Your task to perform on an android device: Search for the best rated 2021 Samsung Galaxy S21 Ultra on AliExpress Image 0: 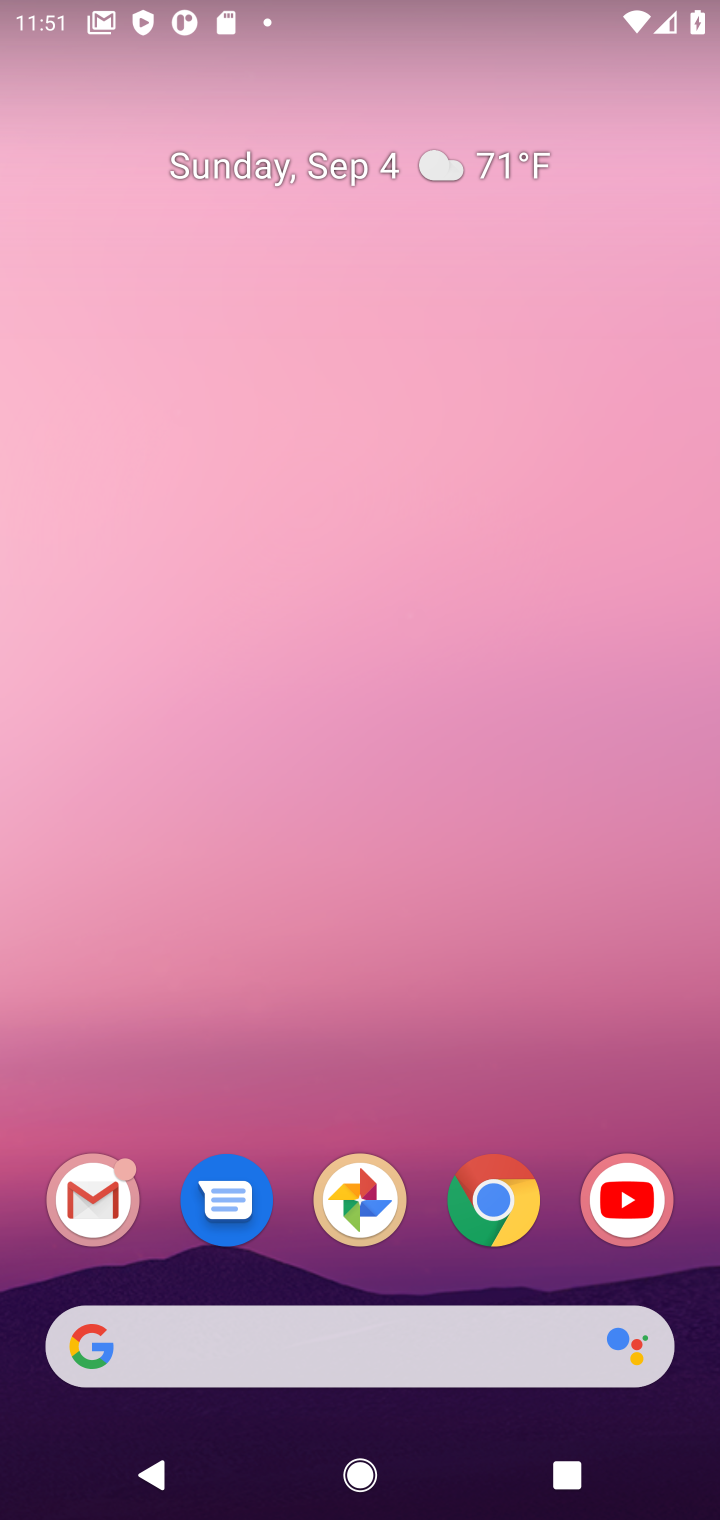
Step 0: click (489, 1207)
Your task to perform on an android device: Search for the best rated 2021 Samsung Galaxy S21 Ultra on AliExpress Image 1: 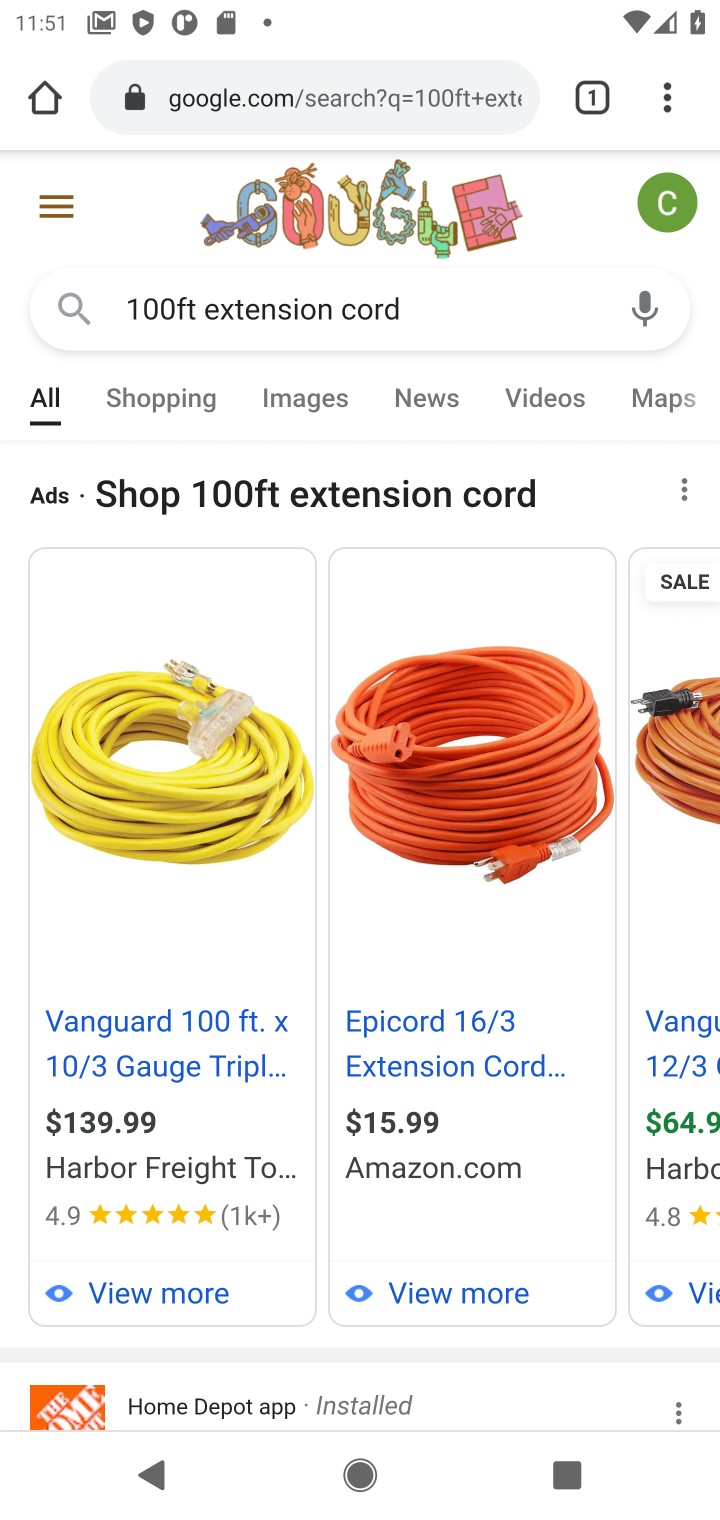
Step 1: click (360, 87)
Your task to perform on an android device: Search for the best rated 2021 Samsung Galaxy S21 Ultra on AliExpress Image 2: 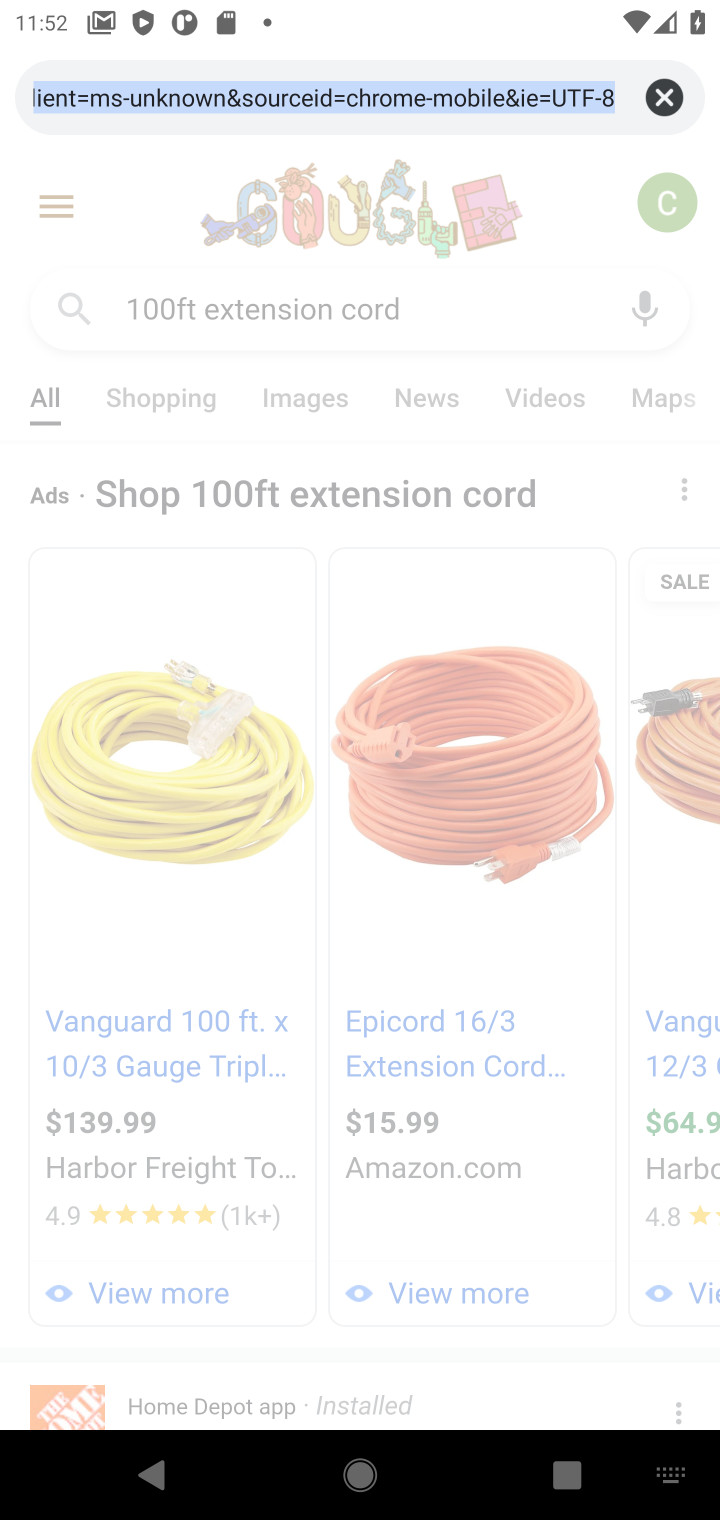
Step 2: type "Aliexpress"
Your task to perform on an android device: Search for the best rated 2021 Samsung Galaxy S21 Ultra on AliExpress Image 3: 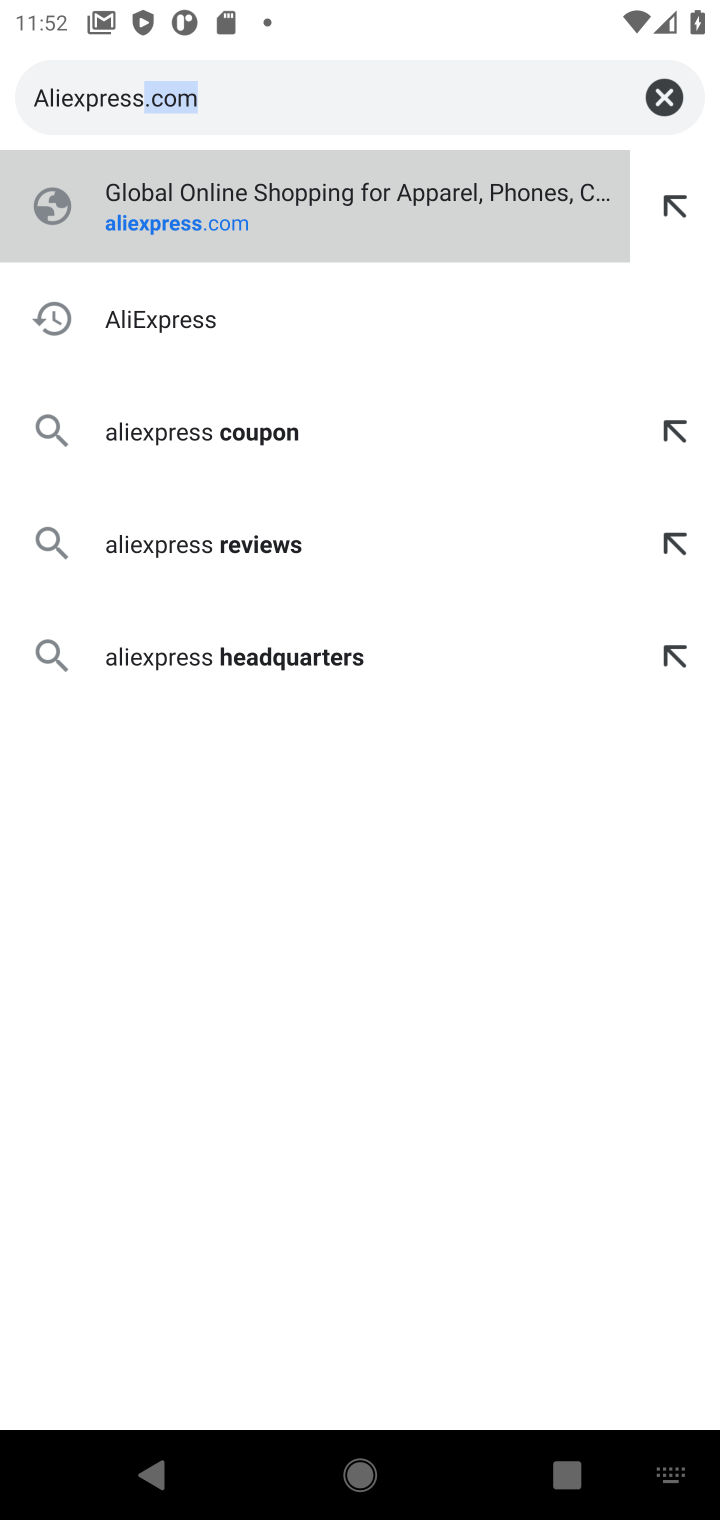
Step 3: click (287, 209)
Your task to perform on an android device: Search for the best rated 2021 Samsung Galaxy S21 Ultra on AliExpress Image 4: 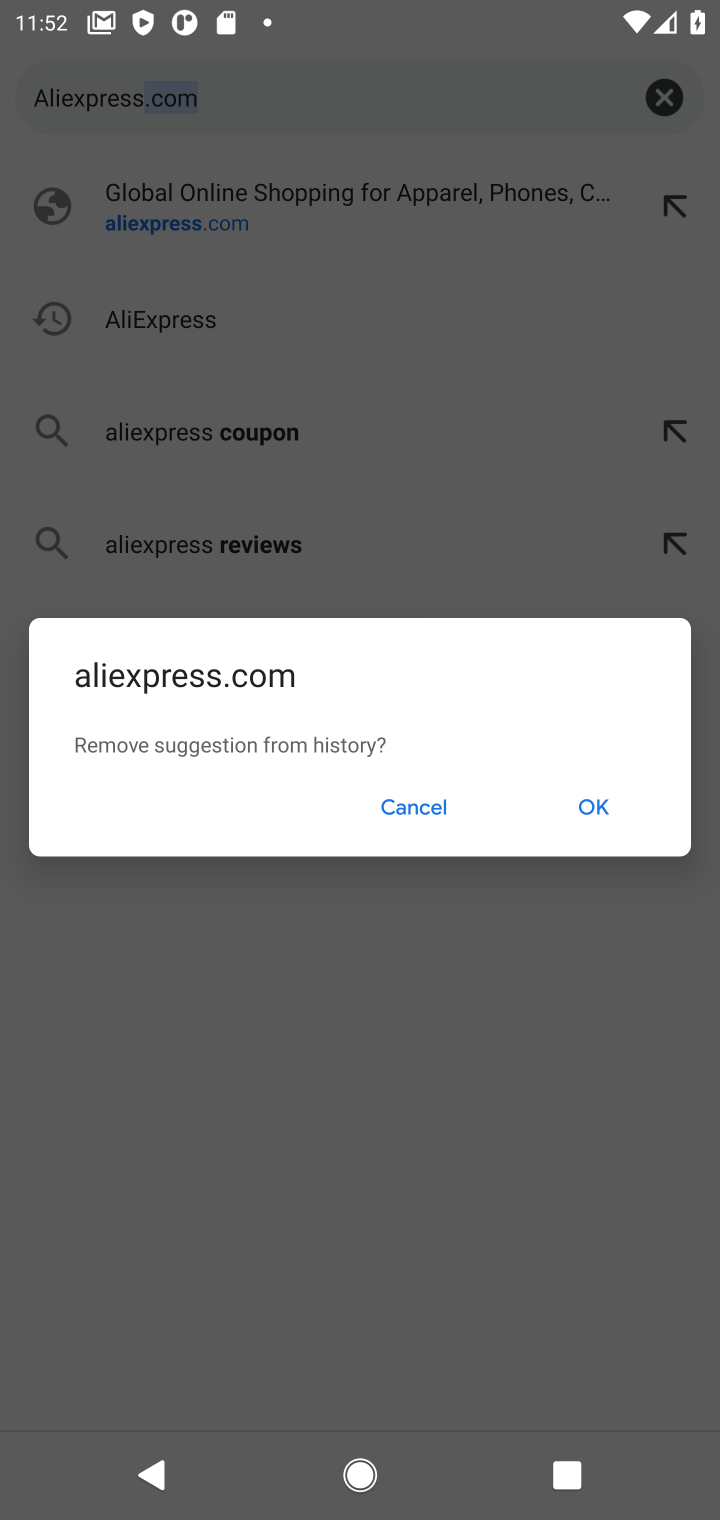
Step 4: click (418, 798)
Your task to perform on an android device: Search for the best rated 2021 Samsung Galaxy S21 Ultra on AliExpress Image 5: 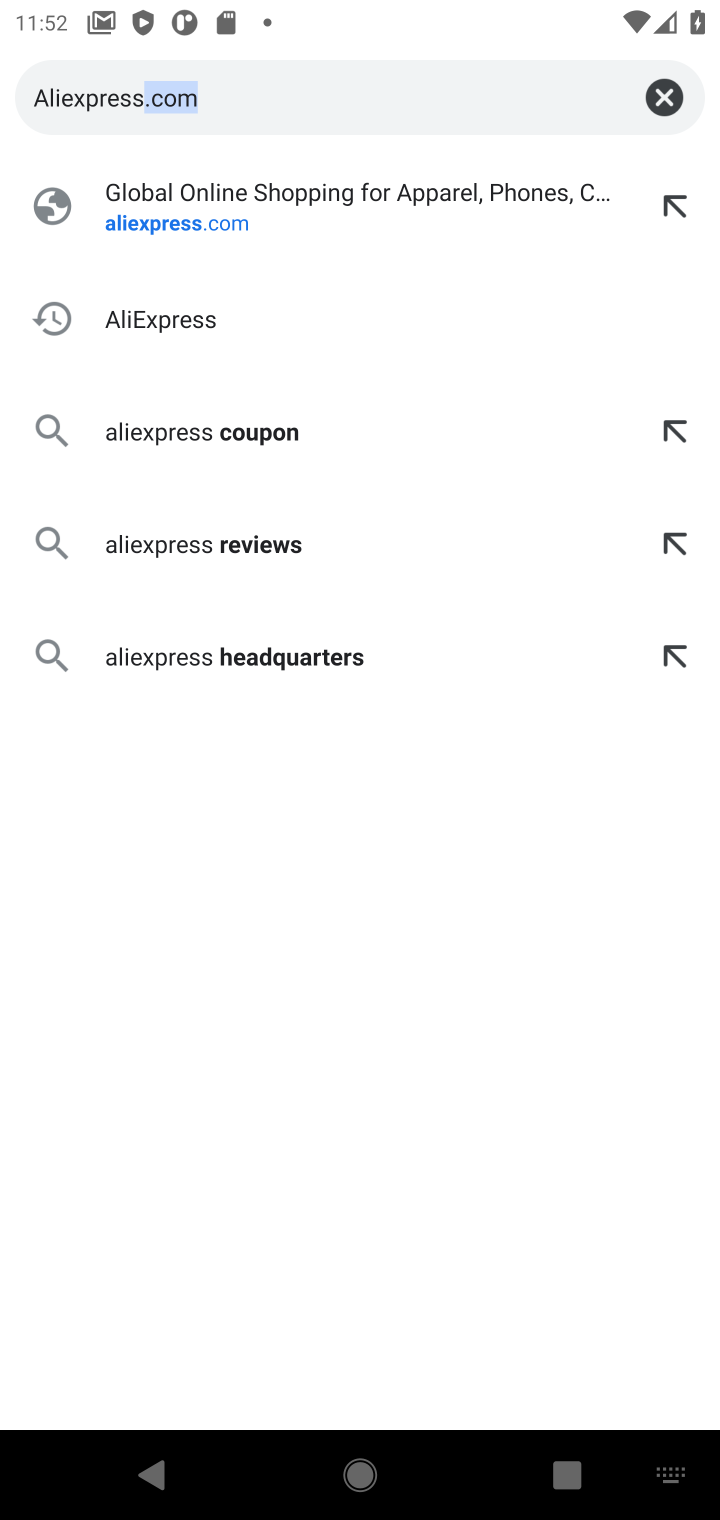
Step 5: click (54, 217)
Your task to perform on an android device: Search for the best rated 2021 Samsung Galaxy S21 Ultra on AliExpress Image 6: 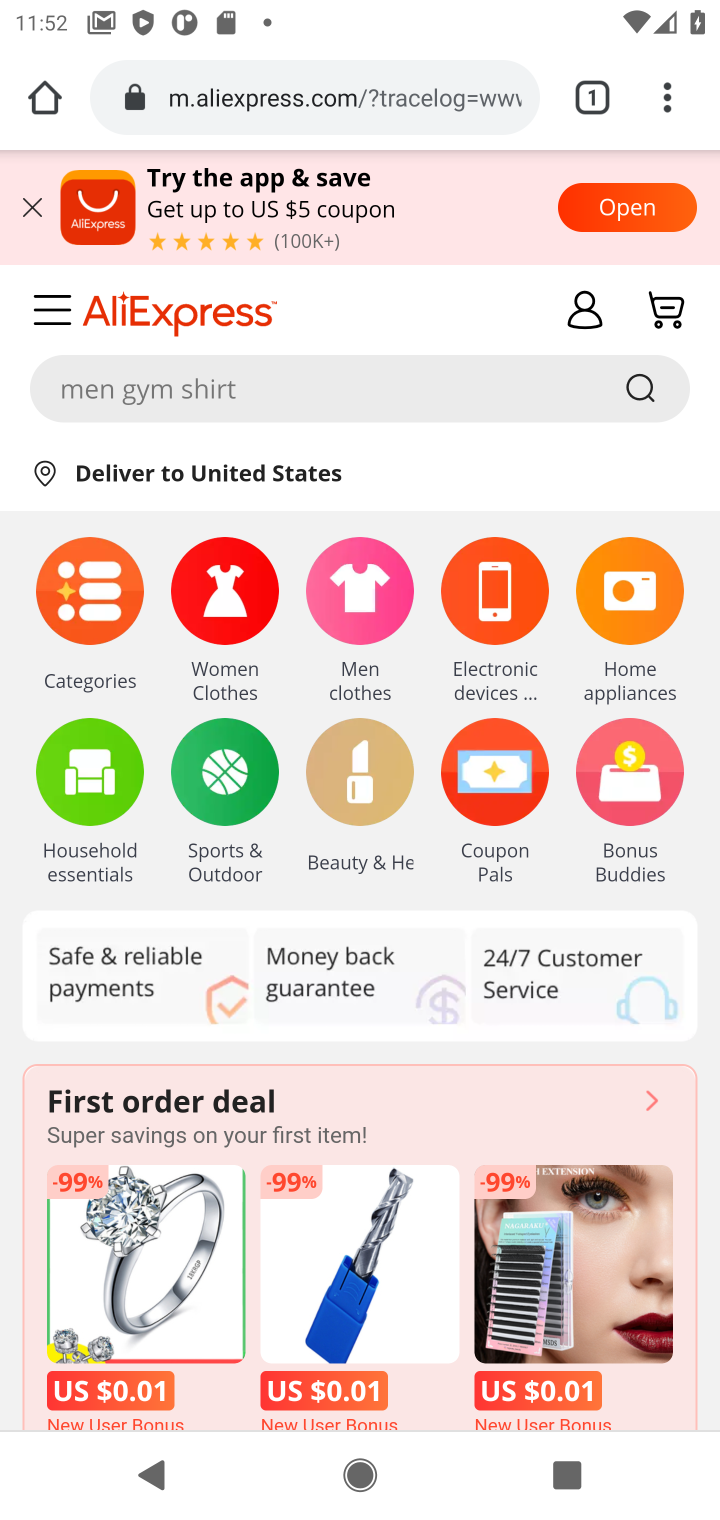
Step 6: click (449, 379)
Your task to perform on an android device: Search for the best rated 2021 Samsung Galaxy S21 Ultra on AliExpress Image 7: 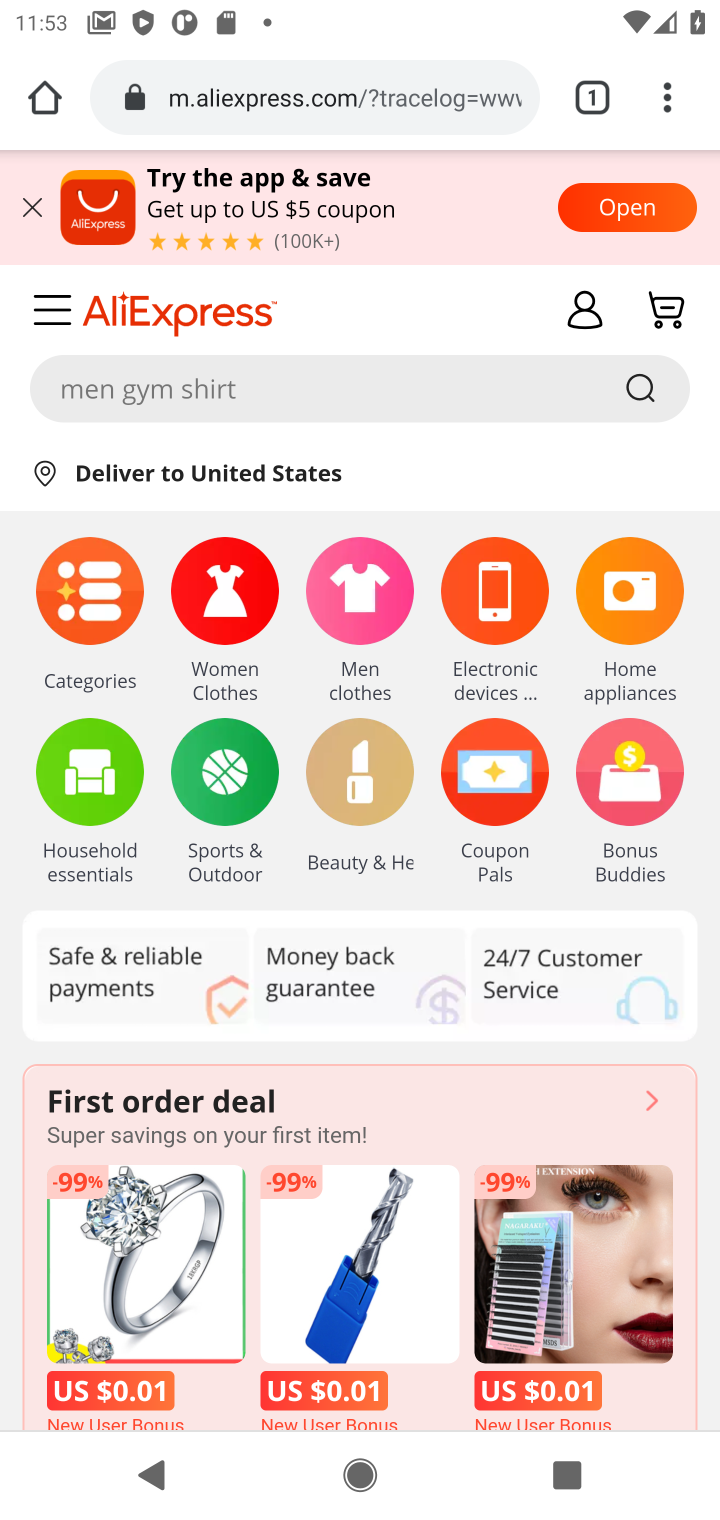
Step 7: click (384, 380)
Your task to perform on an android device: Search for the best rated 2021 Samsung Galaxy S21 Ultra on AliExpress Image 8: 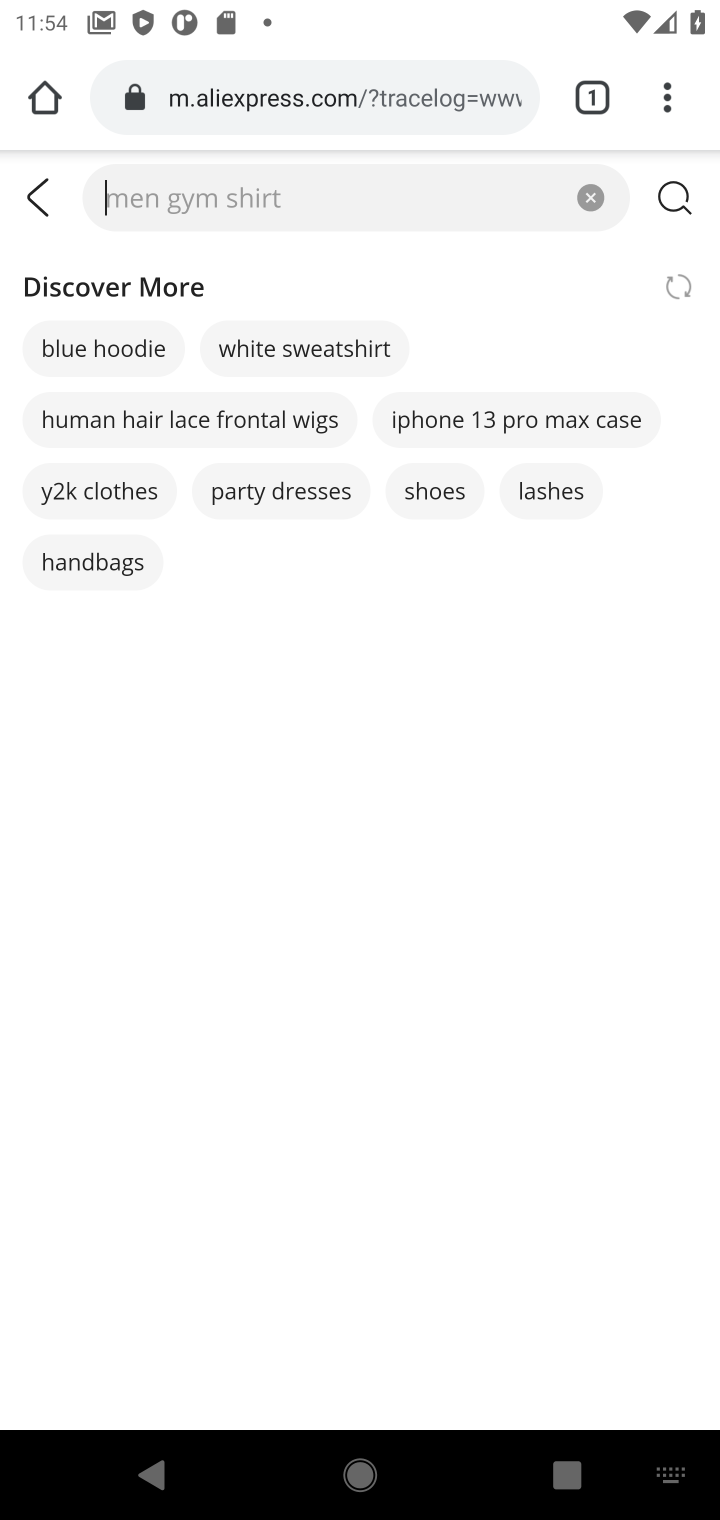
Step 8: type "best rated 2021 samsung galaxy s21 ultra"
Your task to perform on an android device: Search for the best rated 2021 Samsung Galaxy S21 Ultra on AliExpress Image 9: 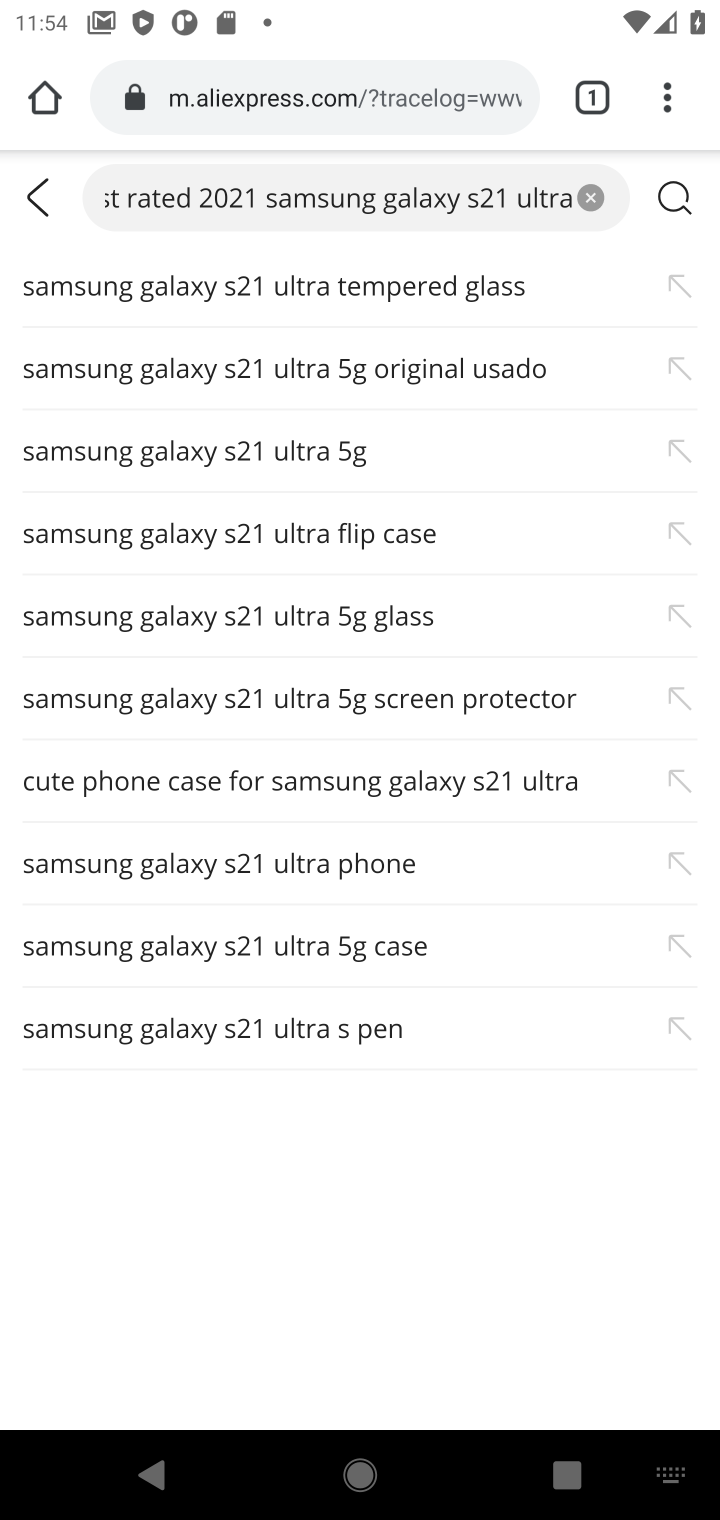
Step 9: click (678, 213)
Your task to perform on an android device: Search for the best rated 2021 Samsung Galaxy S21 Ultra on AliExpress Image 10: 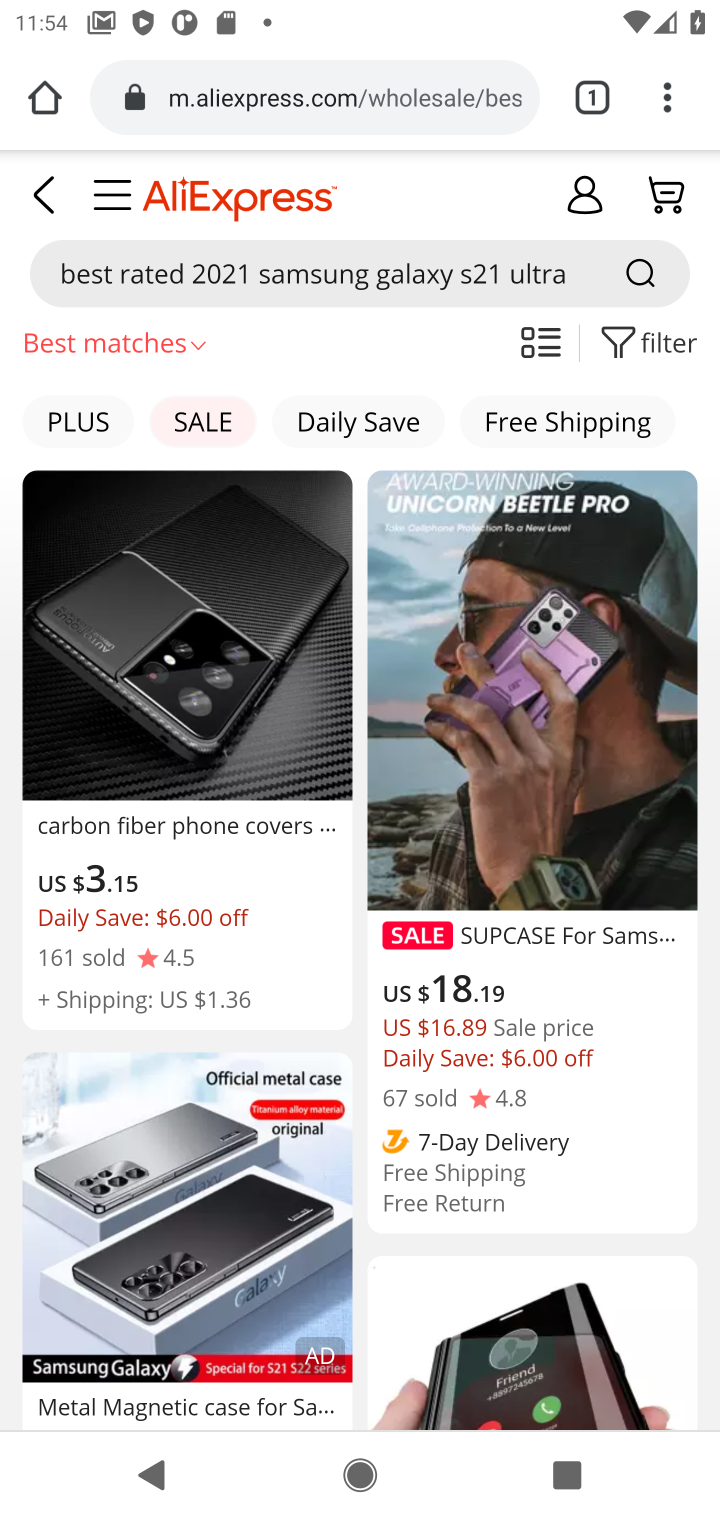
Step 10: task complete